Your task to perform on an android device: move an email to a new category in the gmail app Image 0: 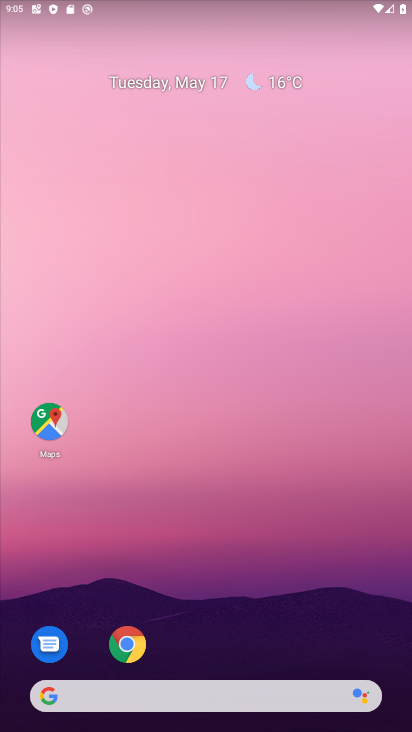
Step 0: drag from (230, 606) to (300, 152)
Your task to perform on an android device: move an email to a new category in the gmail app Image 1: 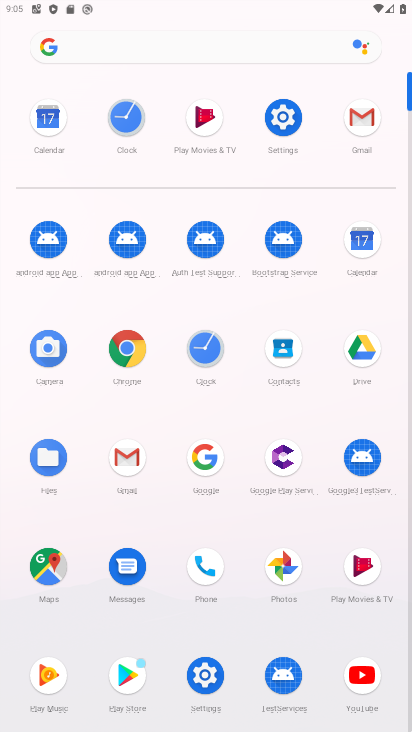
Step 1: click (356, 124)
Your task to perform on an android device: move an email to a new category in the gmail app Image 2: 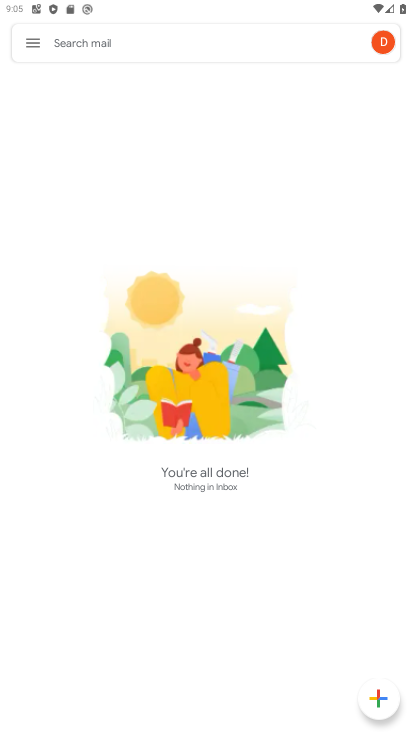
Step 2: click (33, 47)
Your task to perform on an android device: move an email to a new category in the gmail app Image 3: 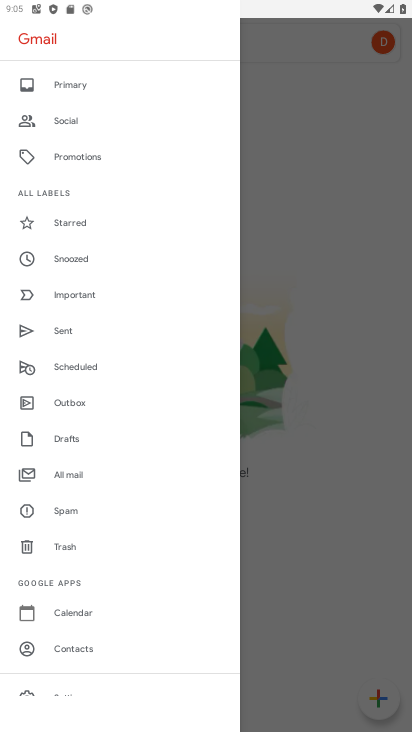
Step 3: click (70, 469)
Your task to perform on an android device: move an email to a new category in the gmail app Image 4: 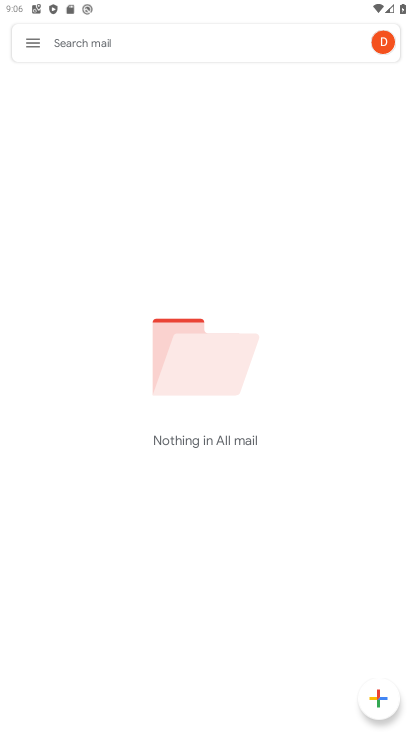
Step 4: task complete